Your task to perform on an android device: Open Google Image 0: 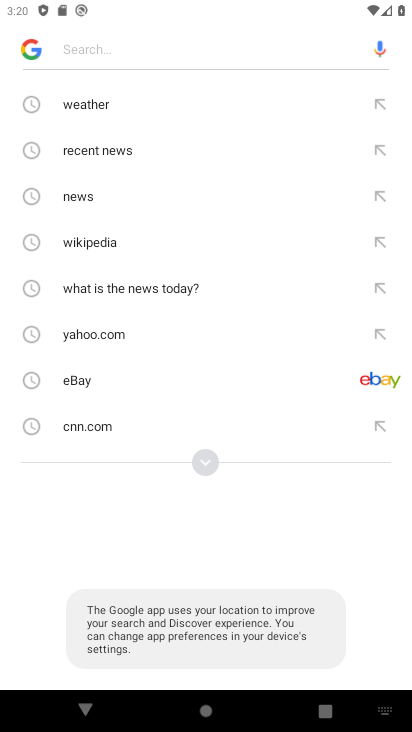
Step 0: press home button
Your task to perform on an android device: Open Google Image 1: 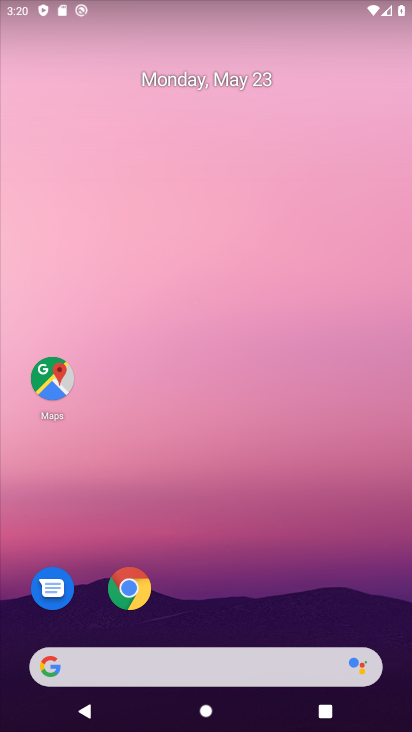
Step 1: drag from (216, 590) to (264, 68)
Your task to perform on an android device: Open Google Image 2: 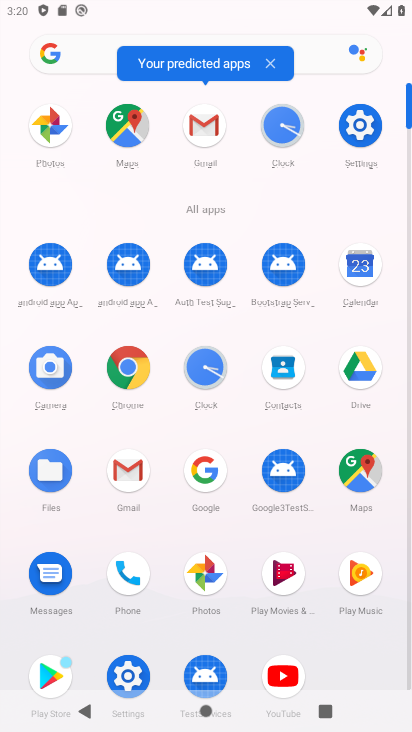
Step 2: click (209, 473)
Your task to perform on an android device: Open Google Image 3: 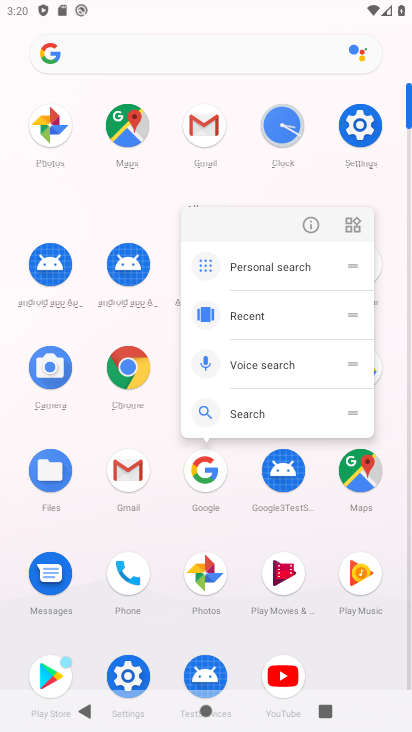
Step 3: click (209, 473)
Your task to perform on an android device: Open Google Image 4: 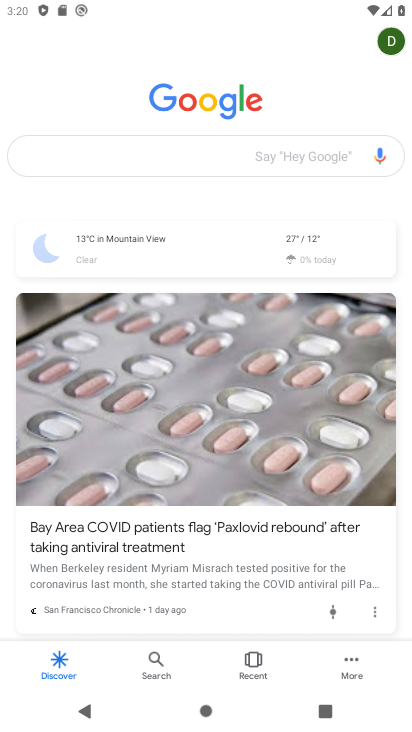
Step 4: task complete